Your task to perform on an android device: Open maps Image 0: 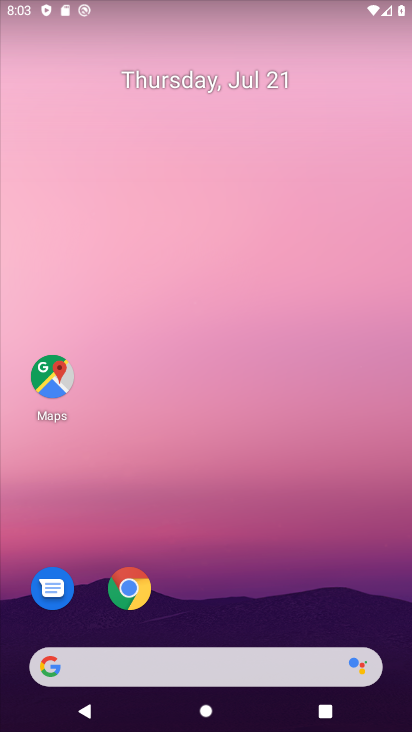
Step 0: drag from (264, 607) to (259, 448)
Your task to perform on an android device: Open maps Image 1: 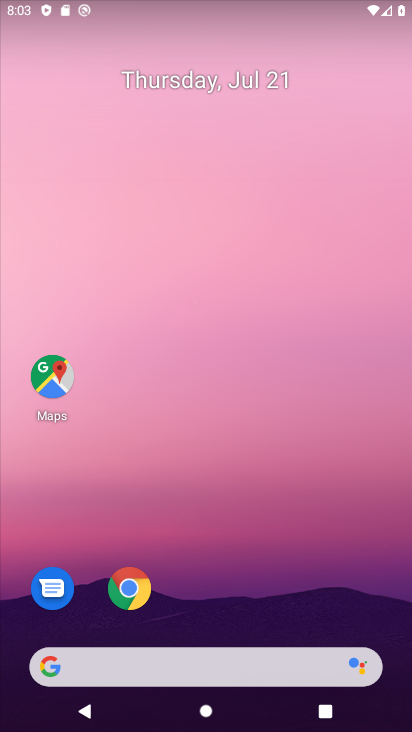
Step 1: drag from (220, 524) to (220, 191)
Your task to perform on an android device: Open maps Image 2: 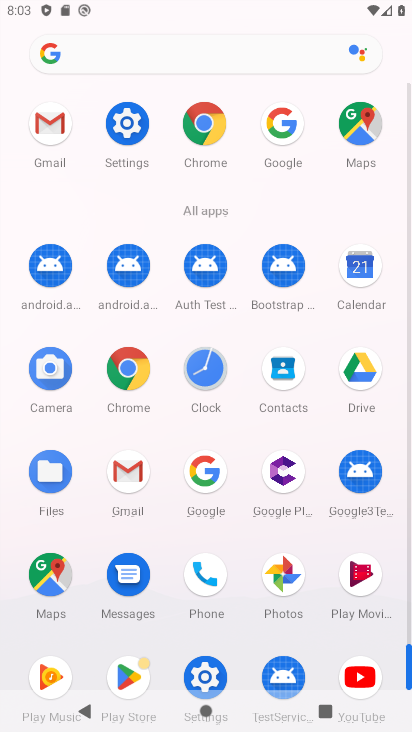
Step 2: drag from (267, 588) to (264, 158)
Your task to perform on an android device: Open maps Image 3: 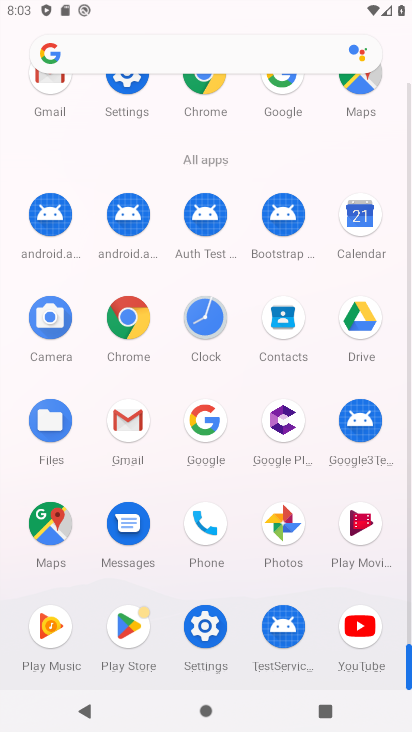
Step 3: click (55, 524)
Your task to perform on an android device: Open maps Image 4: 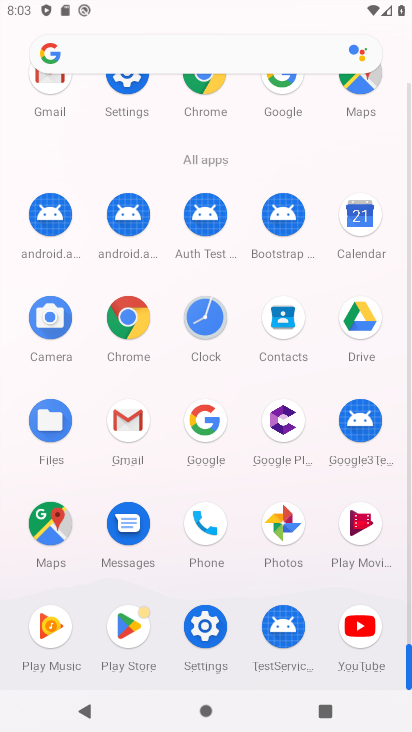
Step 4: click (55, 524)
Your task to perform on an android device: Open maps Image 5: 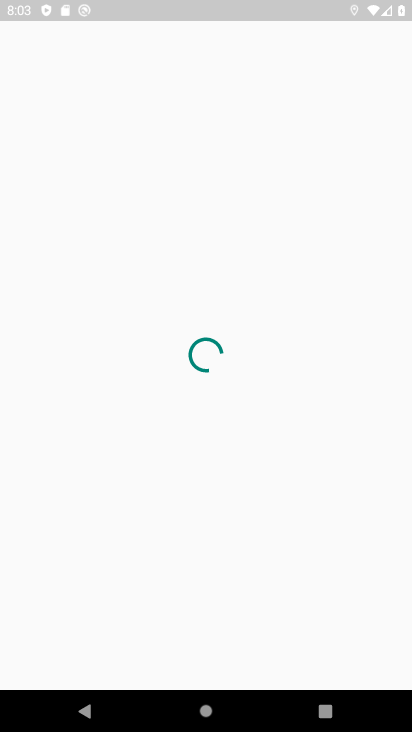
Step 5: click (17, 40)
Your task to perform on an android device: Open maps Image 6: 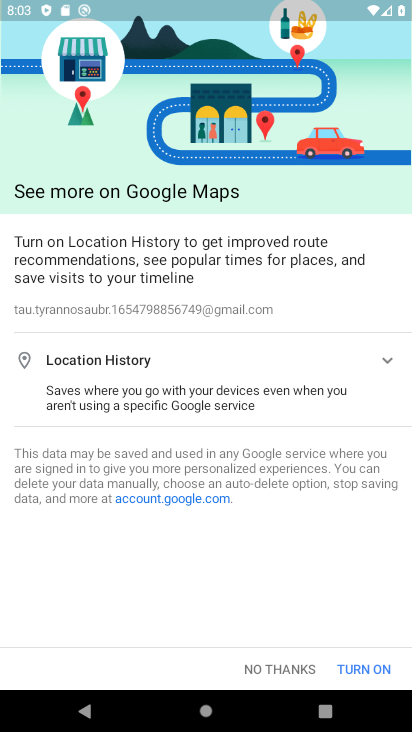
Step 6: press back button
Your task to perform on an android device: Open maps Image 7: 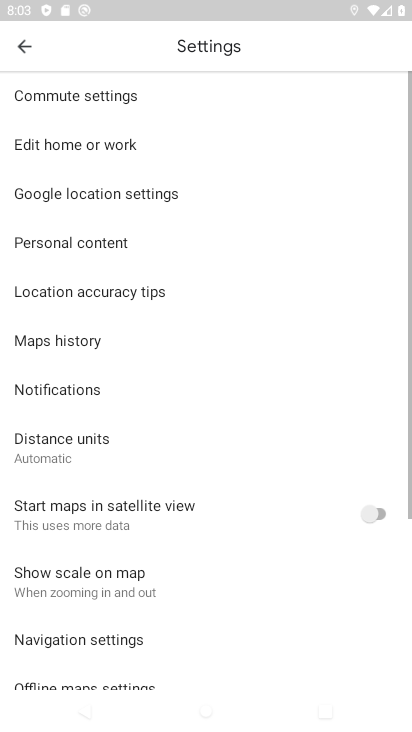
Step 7: click (25, 56)
Your task to perform on an android device: Open maps Image 8: 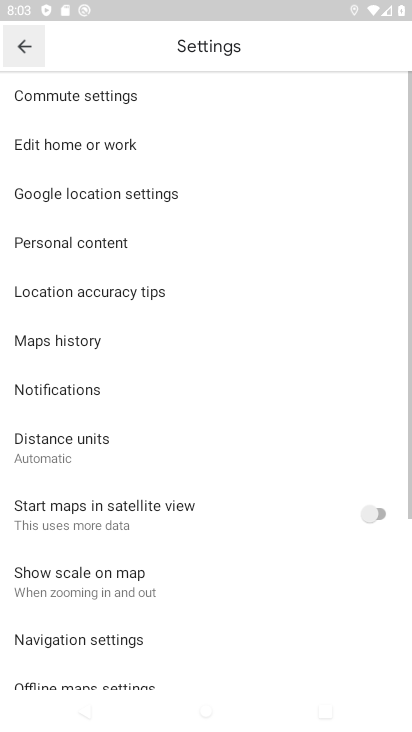
Step 8: click (25, 56)
Your task to perform on an android device: Open maps Image 9: 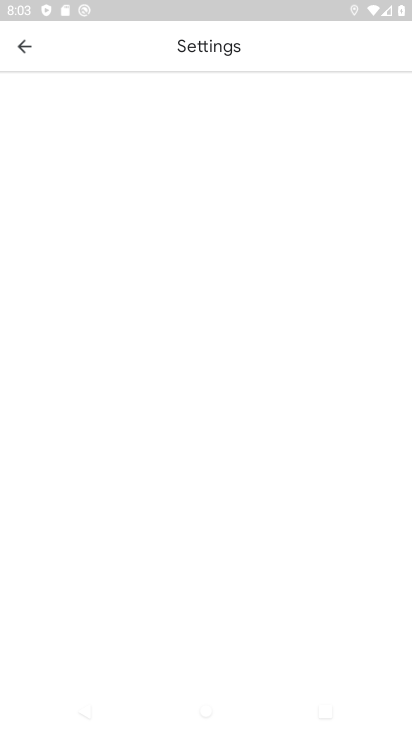
Step 9: click (25, 56)
Your task to perform on an android device: Open maps Image 10: 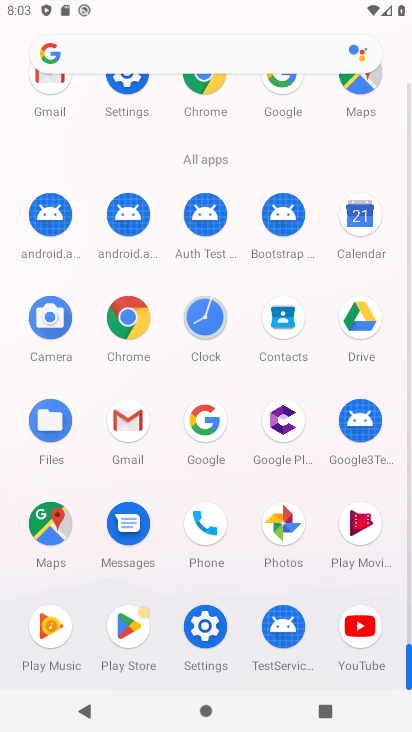
Step 10: task complete